Your task to perform on an android device: Open Yahoo.com Image 0: 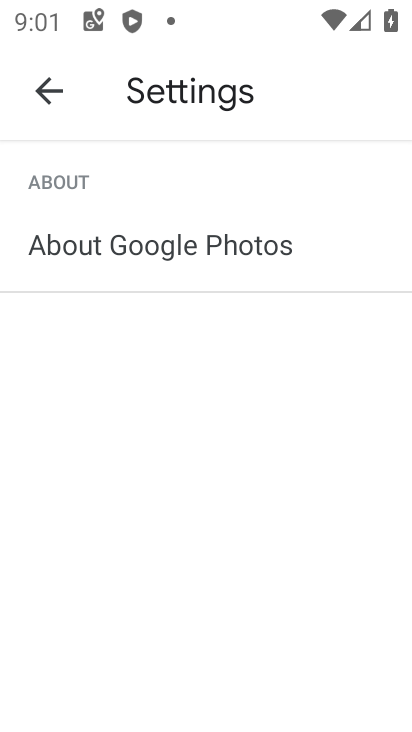
Step 0: press home button
Your task to perform on an android device: Open Yahoo.com Image 1: 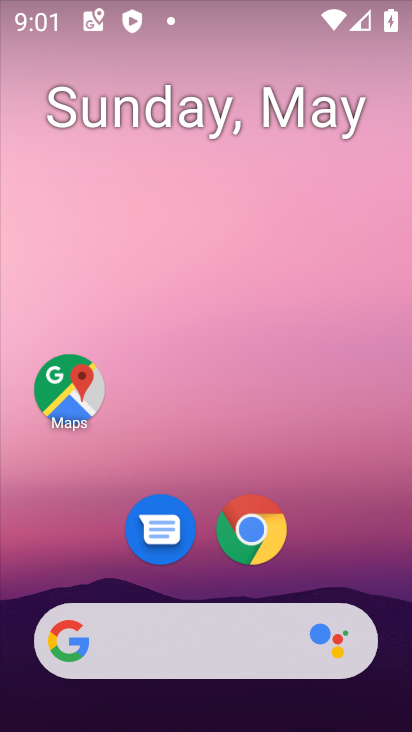
Step 1: click (239, 637)
Your task to perform on an android device: Open Yahoo.com Image 2: 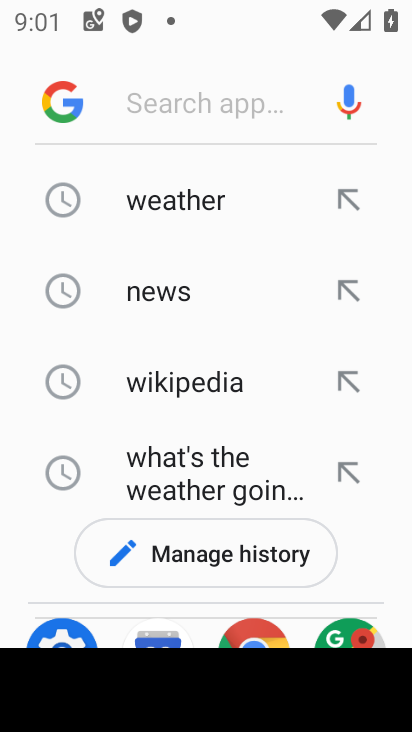
Step 2: type "yahoo.com"
Your task to perform on an android device: Open Yahoo.com Image 3: 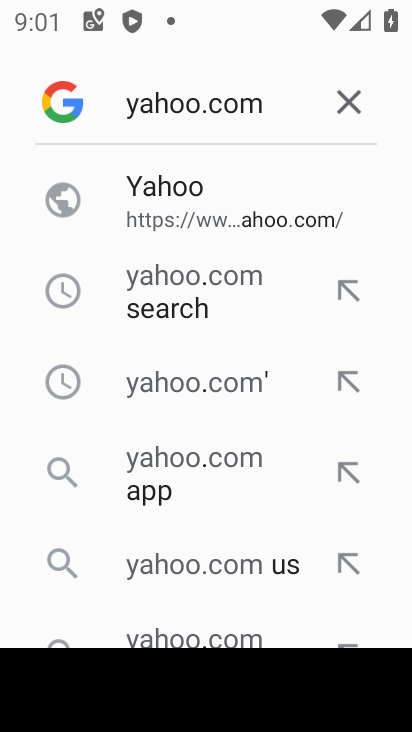
Step 3: click (245, 168)
Your task to perform on an android device: Open Yahoo.com Image 4: 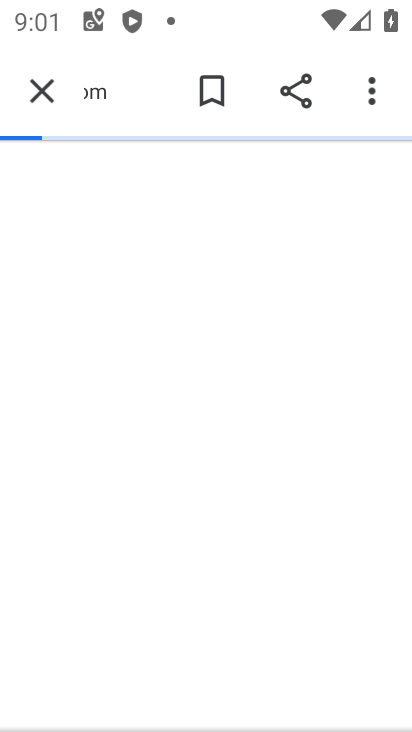
Step 4: task complete